Your task to perform on an android device: change the clock display to analog Image 0: 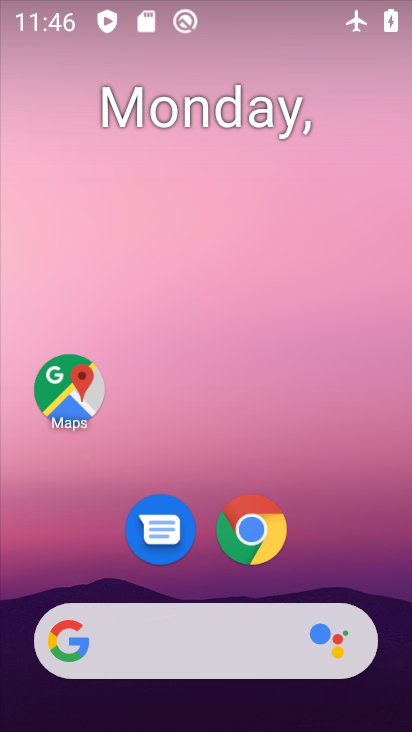
Step 0: drag from (207, 723) to (209, 88)
Your task to perform on an android device: change the clock display to analog Image 1: 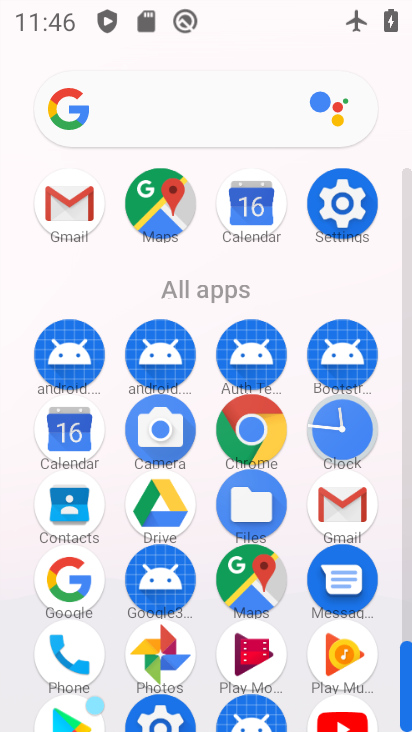
Step 1: click (337, 436)
Your task to perform on an android device: change the clock display to analog Image 2: 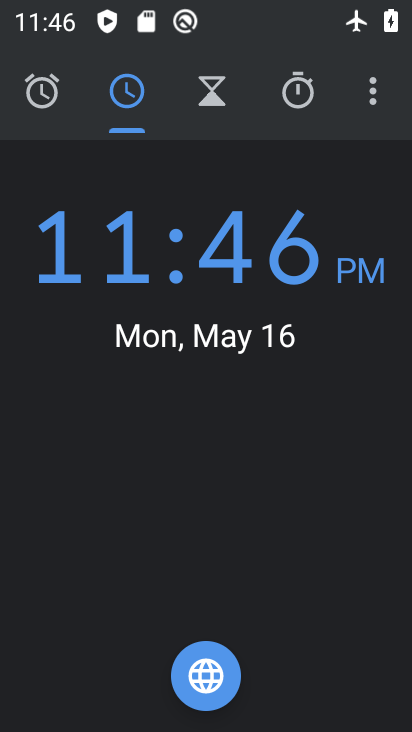
Step 2: click (376, 94)
Your task to perform on an android device: change the clock display to analog Image 3: 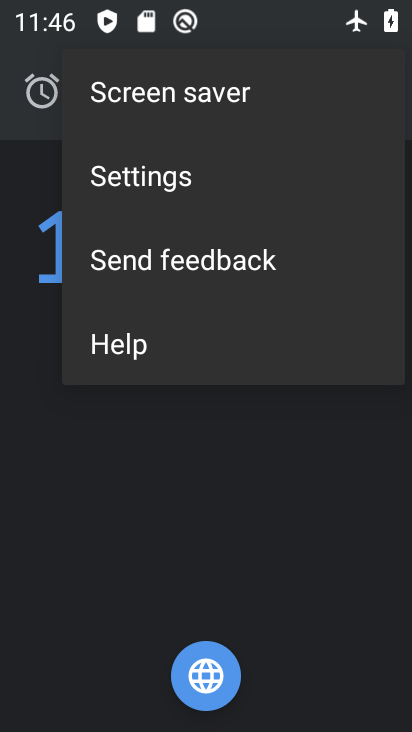
Step 3: click (163, 177)
Your task to perform on an android device: change the clock display to analog Image 4: 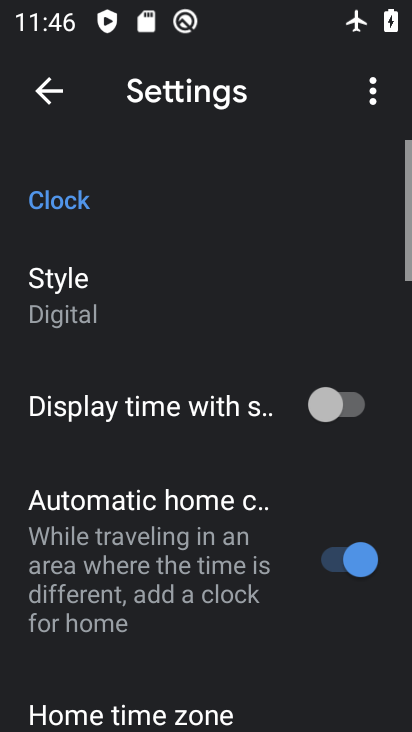
Step 4: click (59, 282)
Your task to perform on an android device: change the clock display to analog Image 5: 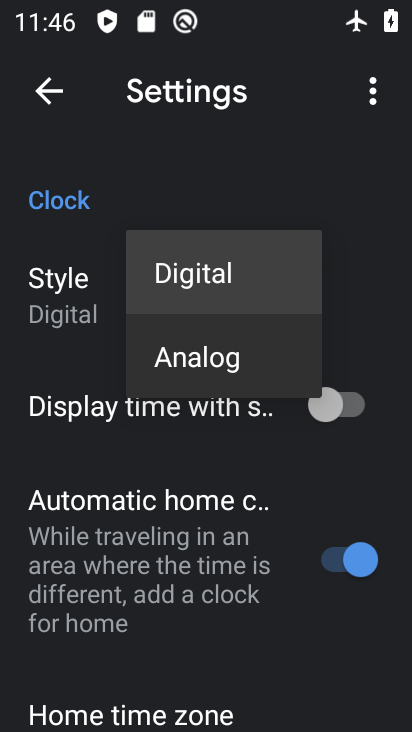
Step 5: click (189, 350)
Your task to perform on an android device: change the clock display to analog Image 6: 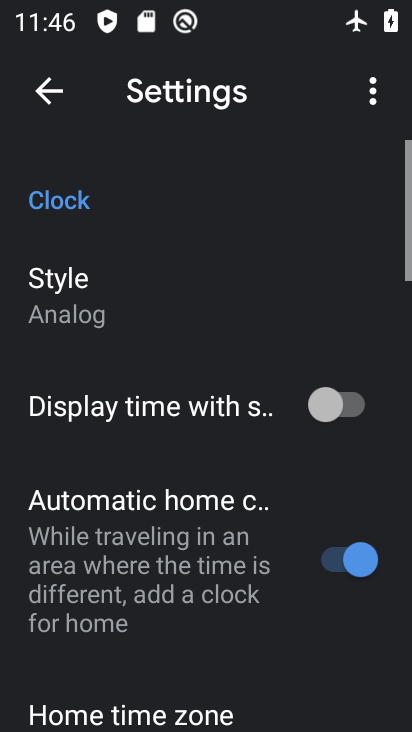
Step 6: task complete